Your task to perform on an android device: Go to wifi settings Image 0: 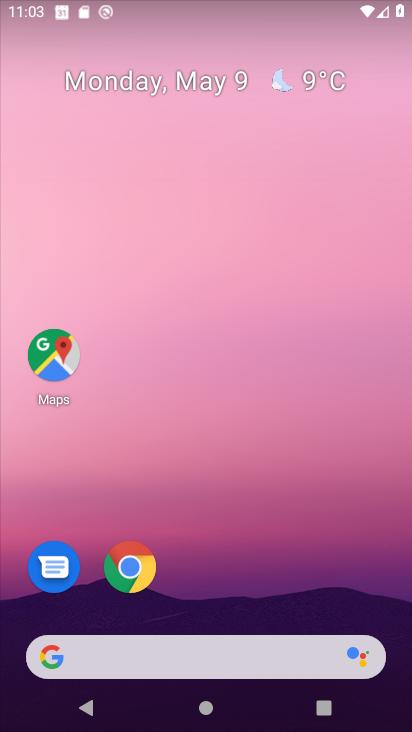
Step 0: press home button
Your task to perform on an android device: Go to wifi settings Image 1: 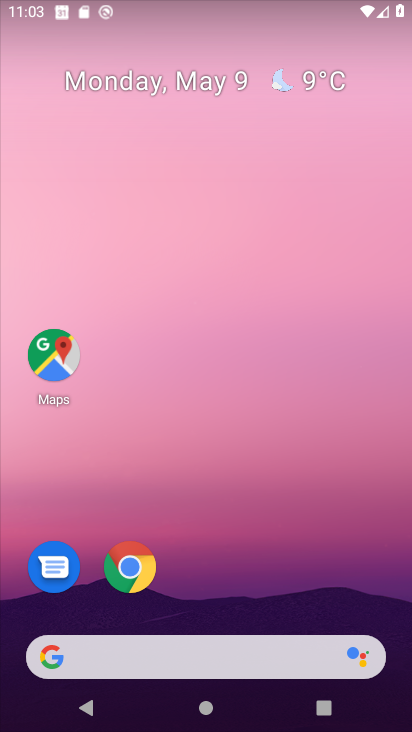
Step 1: drag from (207, 617) to (230, 49)
Your task to perform on an android device: Go to wifi settings Image 2: 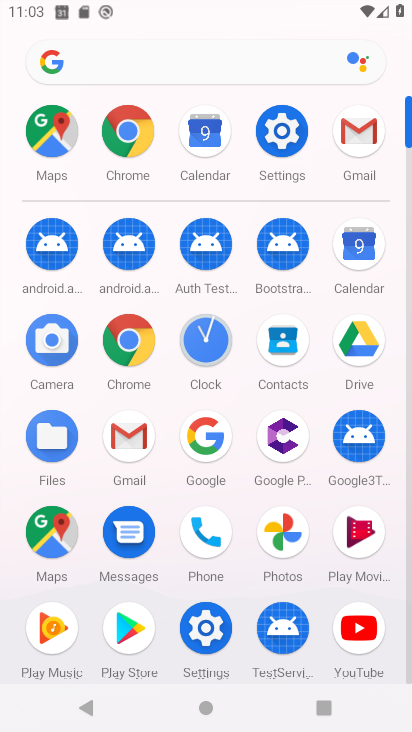
Step 2: click (279, 123)
Your task to perform on an android device: Go to wifi settings Image 3: 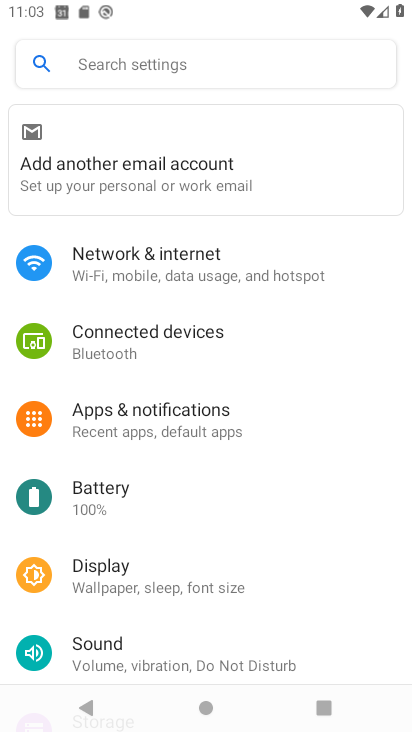
Step 3: click (188, 256)
Your task to perform on an android device: Go to wifi settings Image 4: 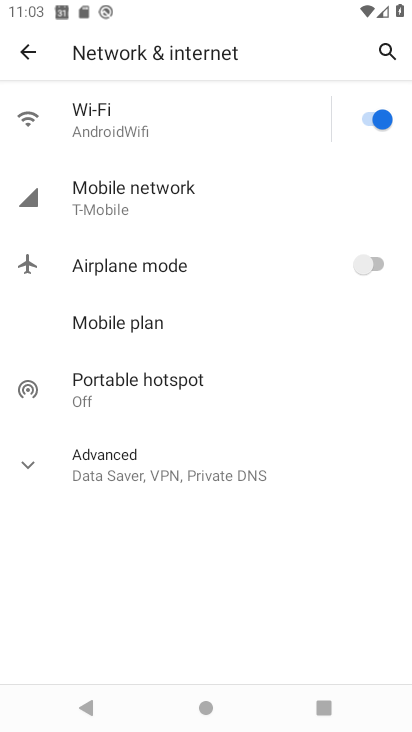
Step 4: click (164, 115)
Your task to perform on an android device: Go to wifi settings Image 5: 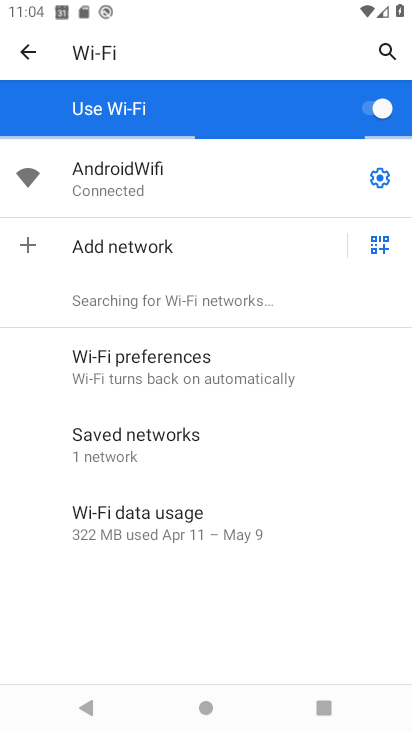
Step 5: task complete